Your task to perform on an android device: make emails show in primary in the gmail app Image 0: 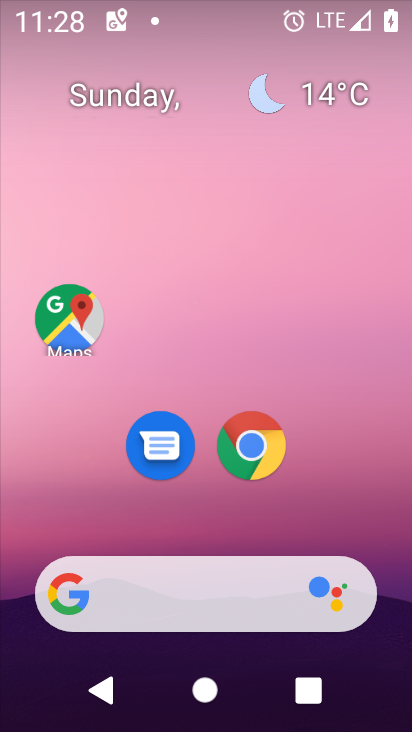
Step 0: drag from (218, 509) to (247, 227)
Your task to perform on an android device: make emails show in primary in the gmail app Image 1: 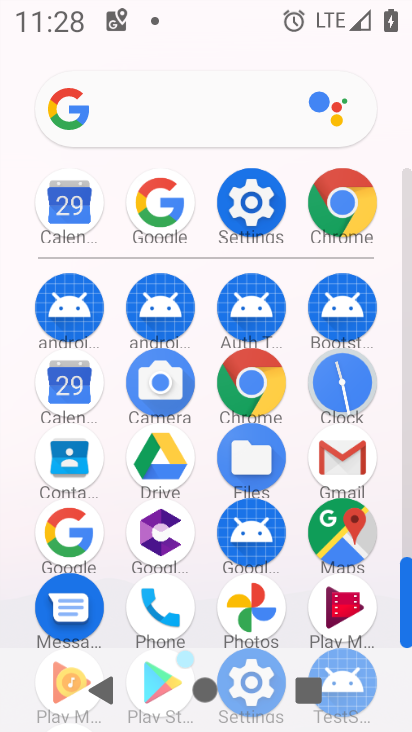
Step 1: click (373, 468)
Your task to perform on an android device: make emails show in primary in the gmail app Image 2: 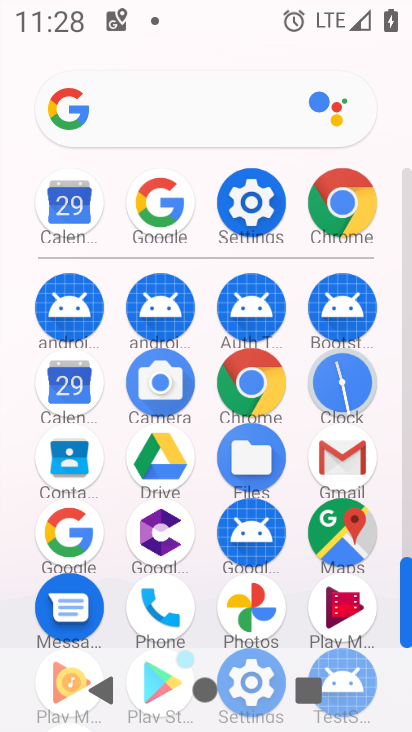
Step 2: click (367, 469)
Your task to perform on an android device: make emails show in primary in the gmail app Image 3: 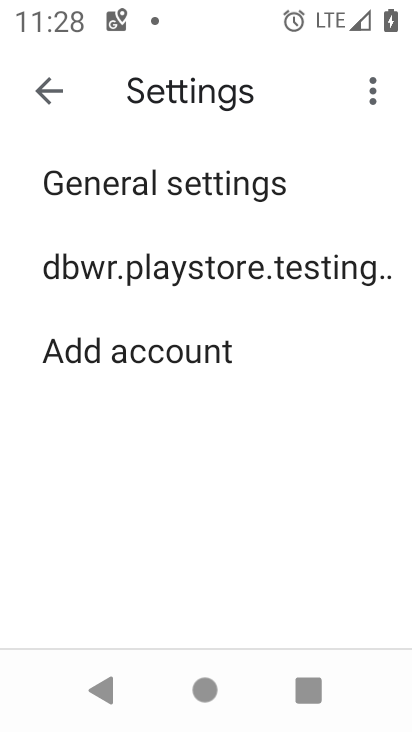
Step 3: click (305, 543)
Your task to perform on an android device: make emails show in primary in the gmail app Image 4: 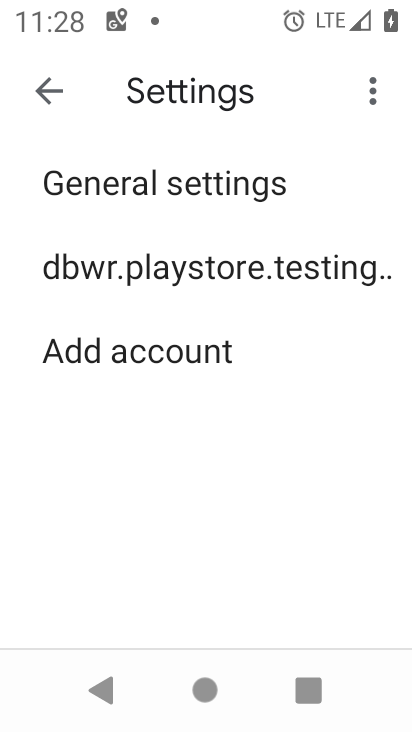
Step 4: press home button
Your task to perform on an android device: make emails show in primary in the gmail app Image 5: 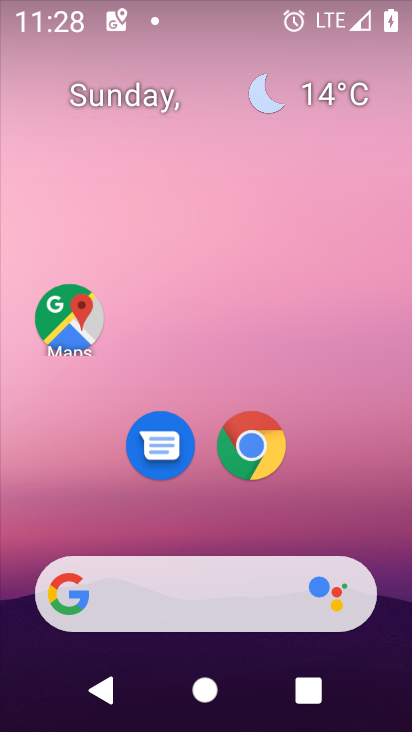
Step 5: drag from (206, 536) to (225, 116)
Your task to perform on an android device: make emails show in primary in the gmail app Image 6: 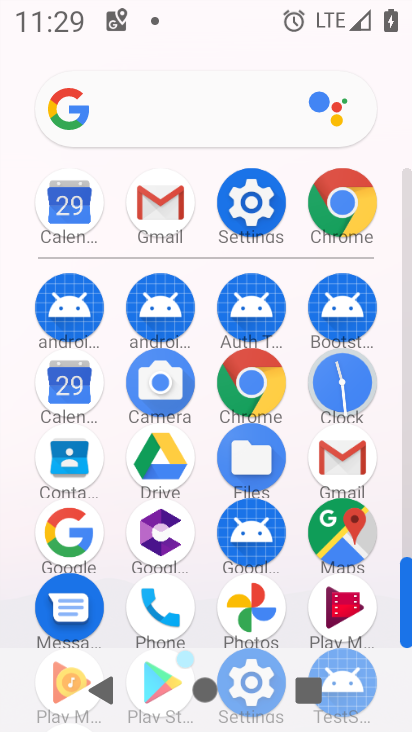
Step 6: click (330, 447)
Your task to perform on an android device: make emails show in primary in the gmail app Image 7: 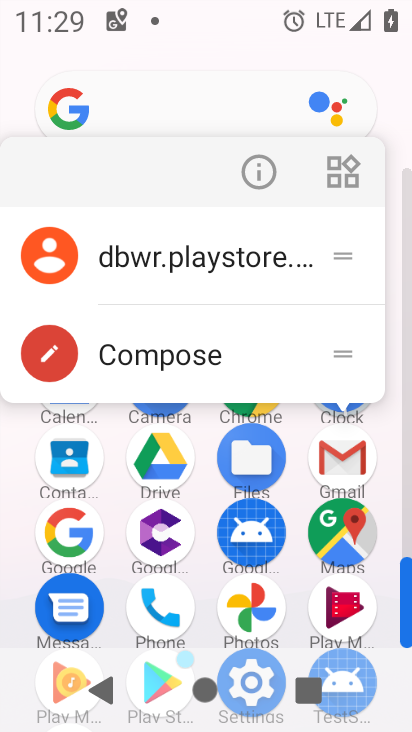
Step 7: click (252, 179)
Your task to perform on an android device: make emails show in primary in the gmail app Image 8: 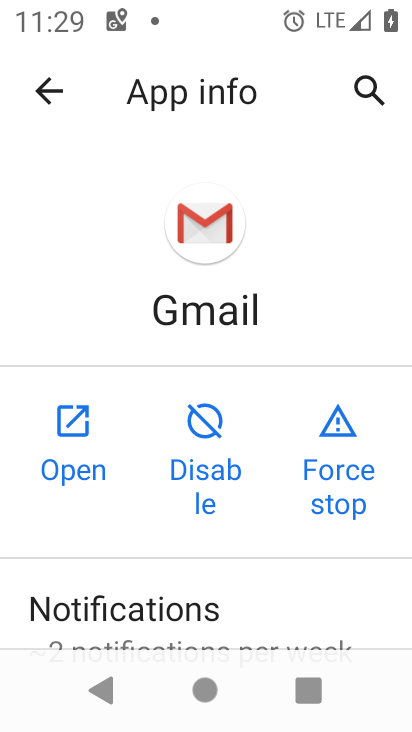
Step 8: click (65, 431)
Your task to perform on an android device: make emails show in primary in the gmail app Image 9: 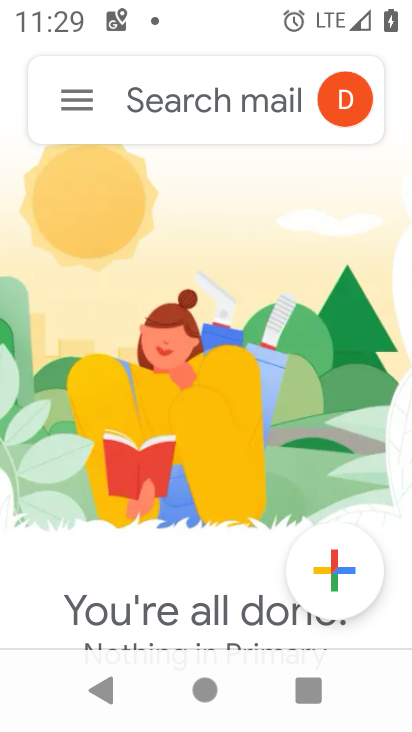
Step 9: click (88, 97)
Your task to perform on an android device: make emails show in primary in the gmail app Image 10: 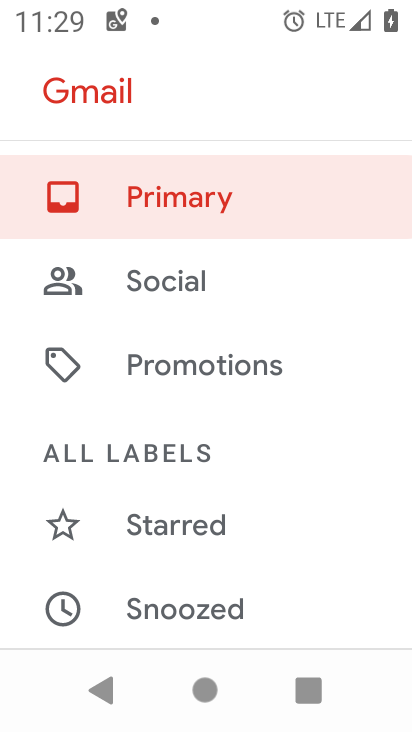
Step 10: click (163, 219)
Your task to perform on an android device: make emails show in primary in the gmail app Image 11: 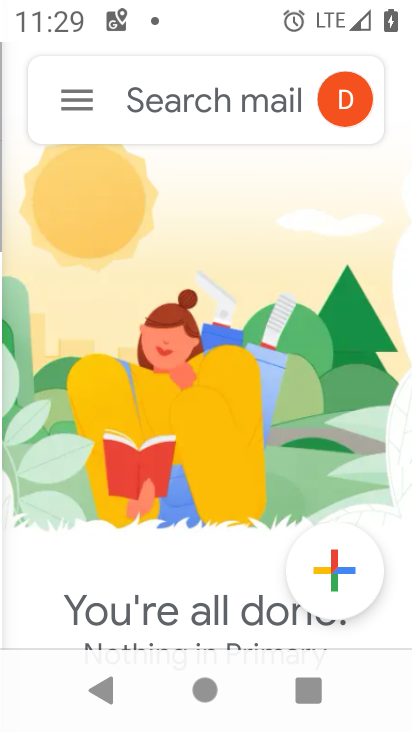
Step 11: task complete